Your task to perform on an android device: Do I have any events this weekend? Image 0: 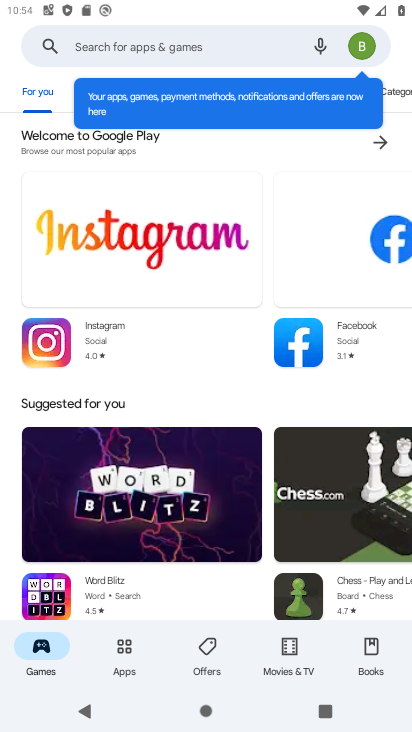
Step 0: press home button
Your task to perform on an android device: Do I have any events this weekend? Image 1: 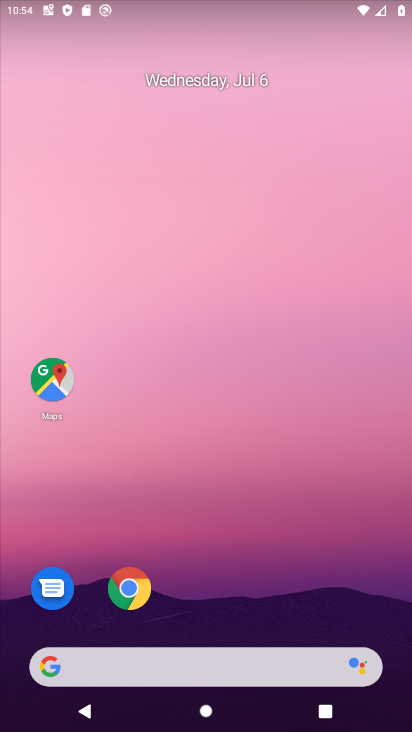
Step 1: drag from (222, 579) to (219, 156)
Your task to perform on an android device: Do I have any events this weekend? Image 2: 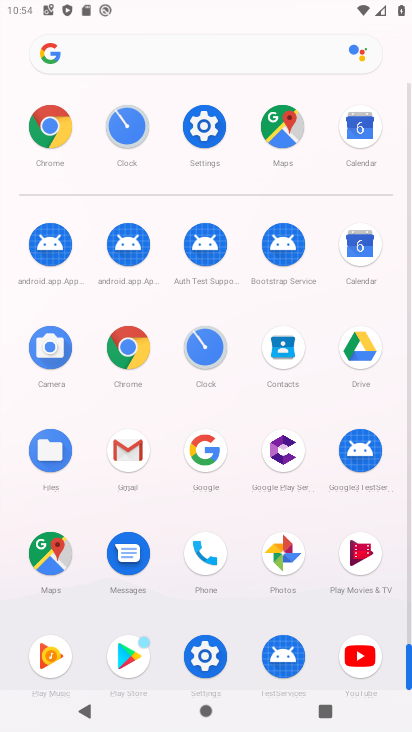
Step 2: click (361, 246)
Your task to perform on an android device: Do I have any events this weekend? Image 3: 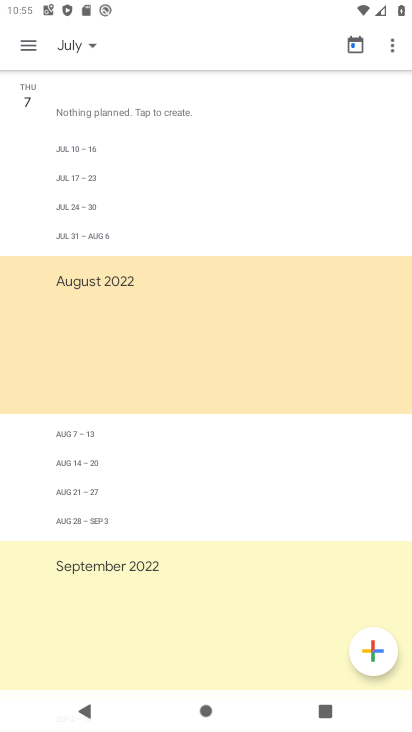
Step 3: click (34, 33)
Your task to perform on an android device: Do I have any events this weekend? Image 4: 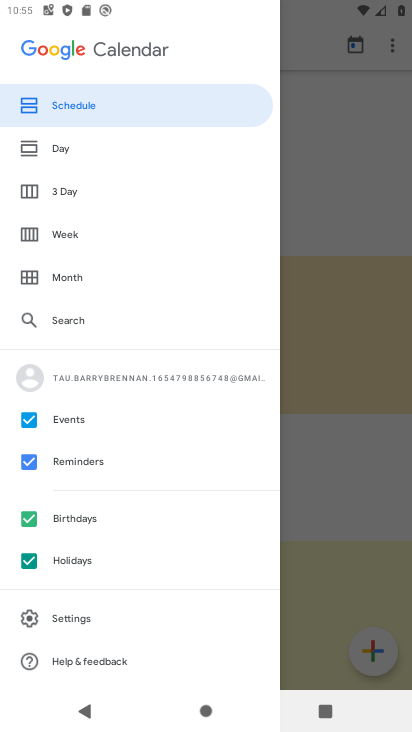
Step 4: click (85, 276)
Your task to perform on an android device: Do I have any events this weekend? Image 5: 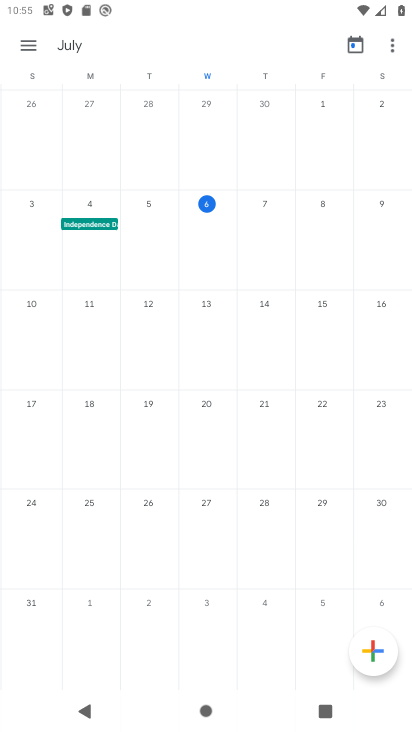
Step 5: task complete